Your task to perform on an android device: Set the phone to "Do not disturb". Image 0: 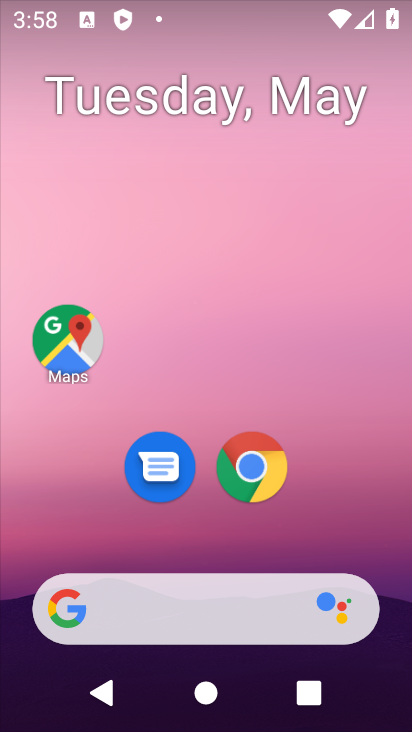
Step 0: task complete